Your task to perform on an android device: Go to Google Image 0: 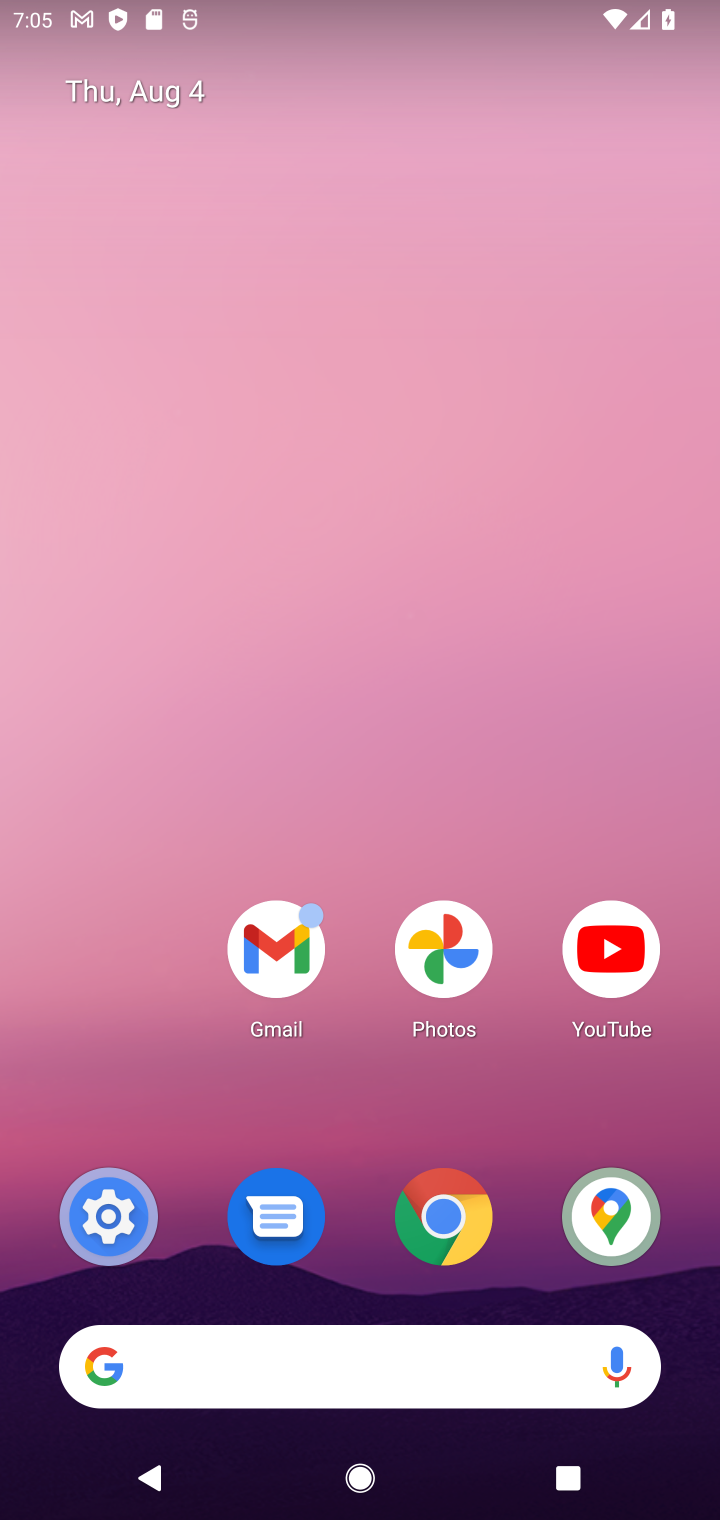
Step 0: drag from (310, 497) to (308, 232)
Your task to perform on an android device: Go to Google Image 1: 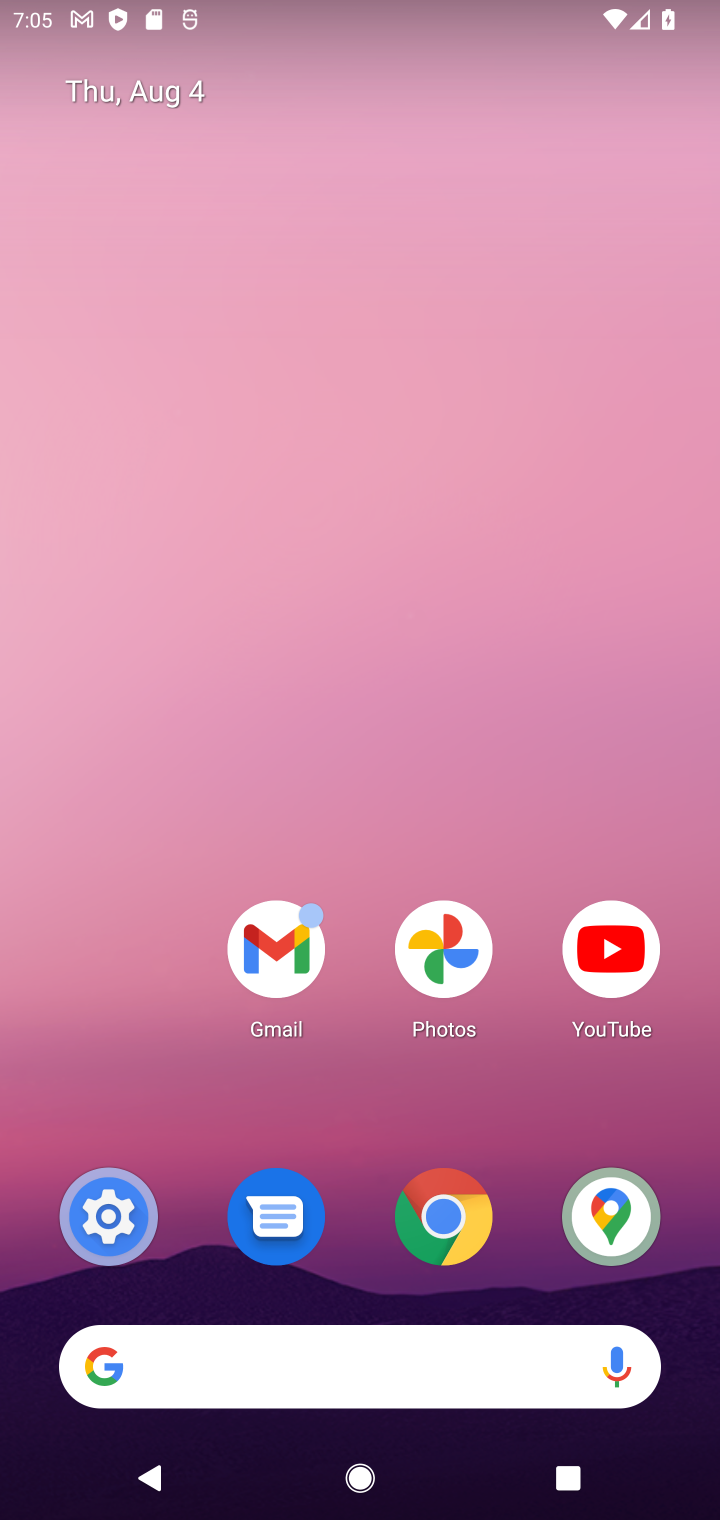
Step 1: drag from (378, 1019) to (355, 205)
Your task to perform on an android device: Go to Google Image 2: 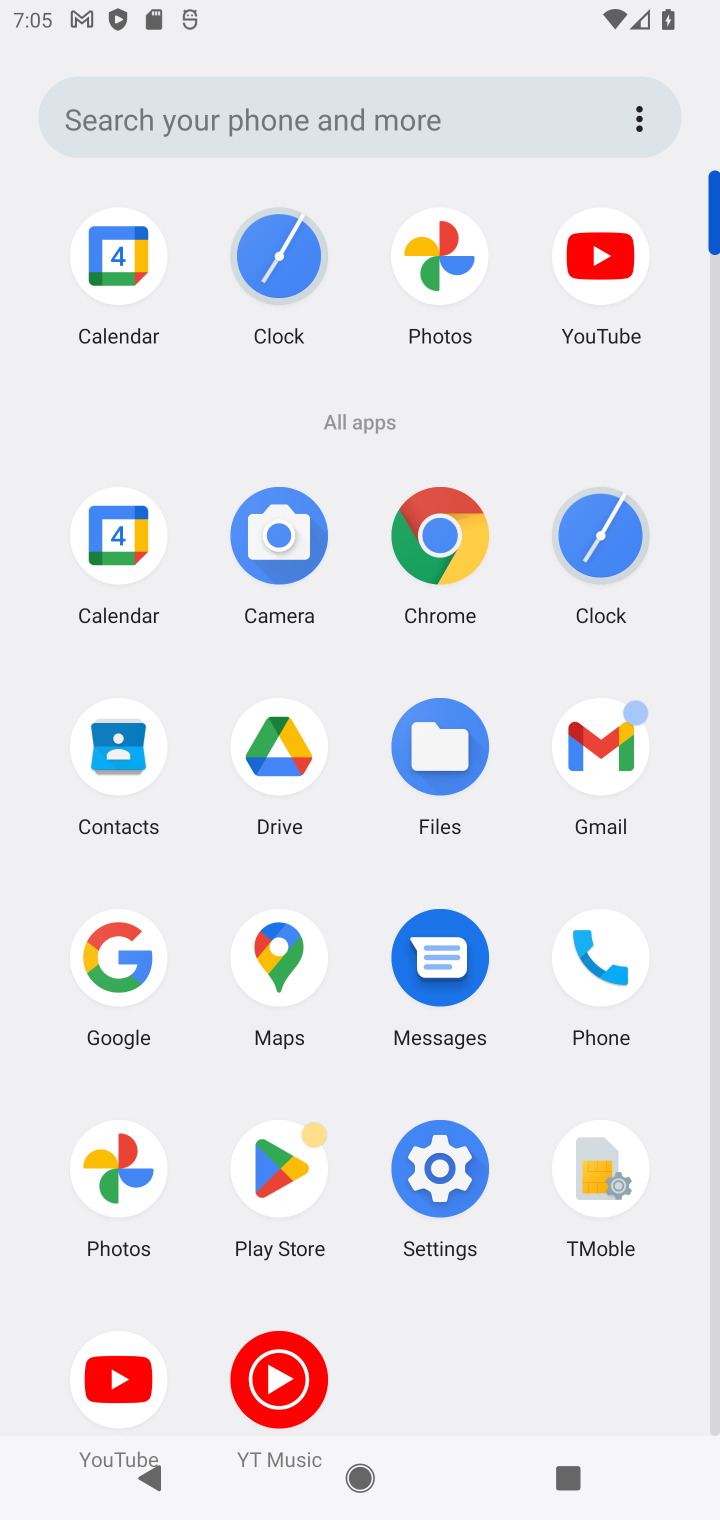
Step 2: click (108, 959)
Your task to perform on an android device: Go to Google Image 3: 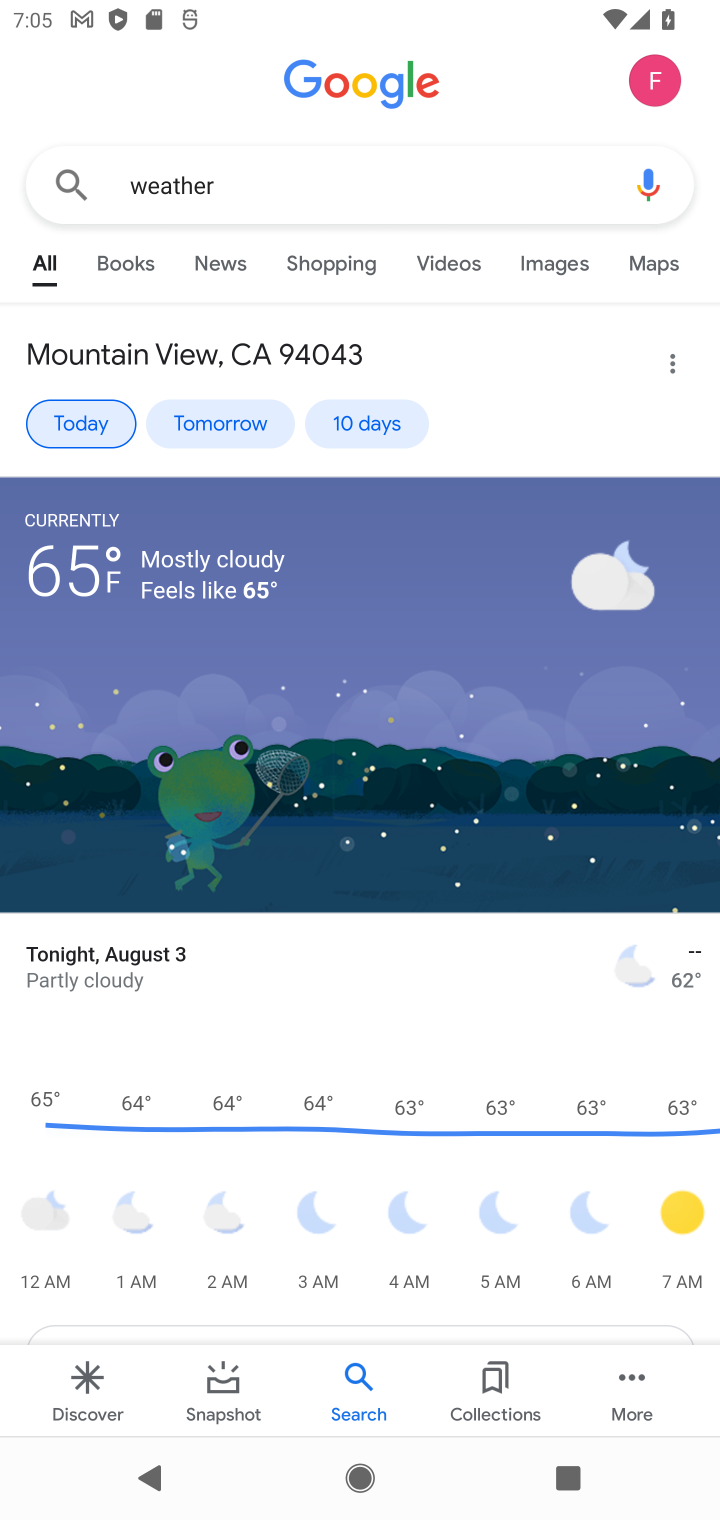
Step 3: task complete